Your task to perform on an android device: Go to settings Image 0: 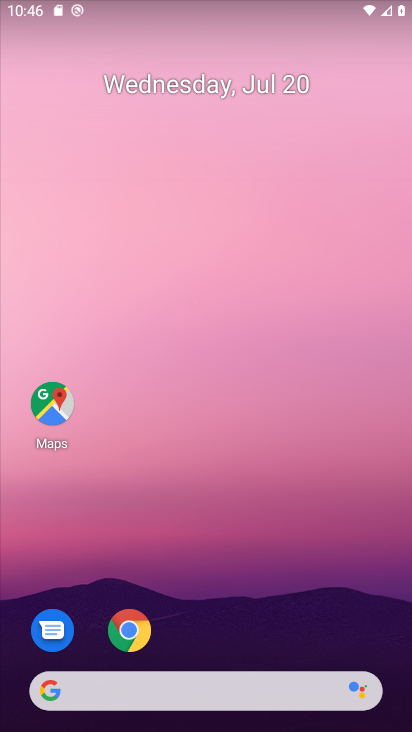
Step 0: drag from (220, 465) to (177, 179)
Your task to perform on an android device: Go to settings Image 1: 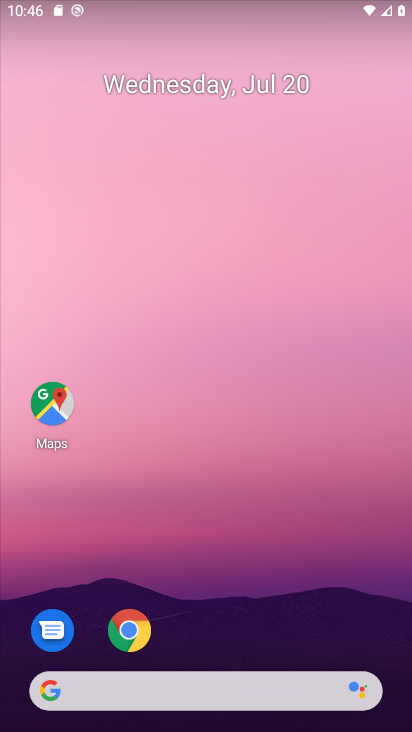
Step 1: drag from (226, 645) to (208, 2)
Your task to perform on an android device: Go to settings Image 2: 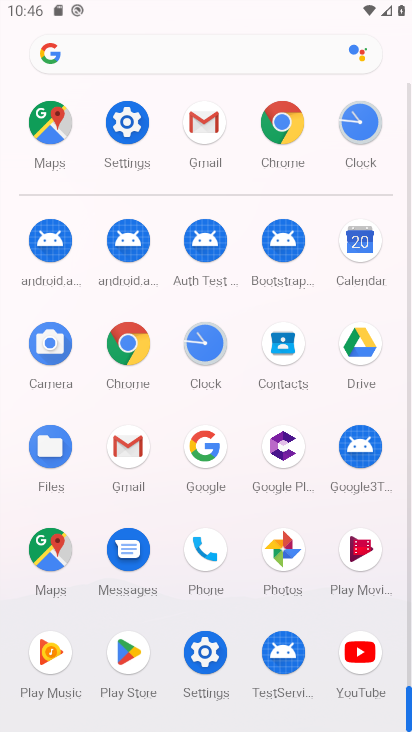
Step 2: click (132, 113)
Your task to perform on an android device: Go to settings Image 3: 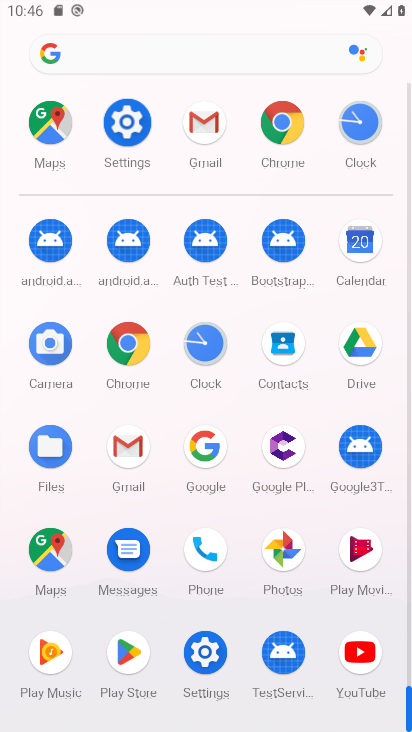
Step 3: click (134, 116)
Your task to perform on an android device: Go to settings Image 4: 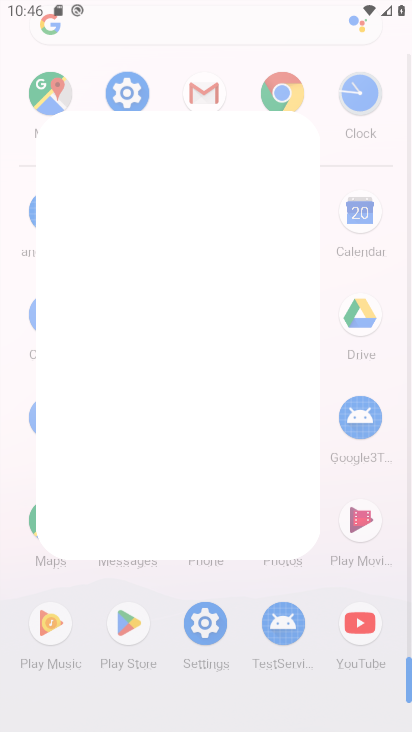
Step 4: click (134, 116)
Your task to perform on an android device: Go to settings Image 5: 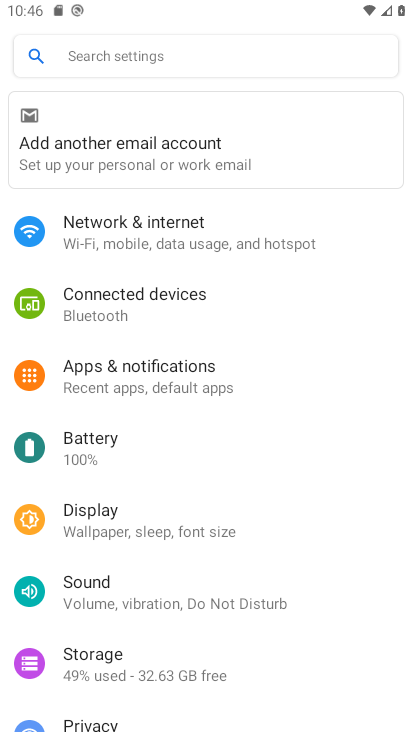
Step 5: drag from (121, 519) to (71, 211)
Your task to perform on an android device: Go to settings Image 6: 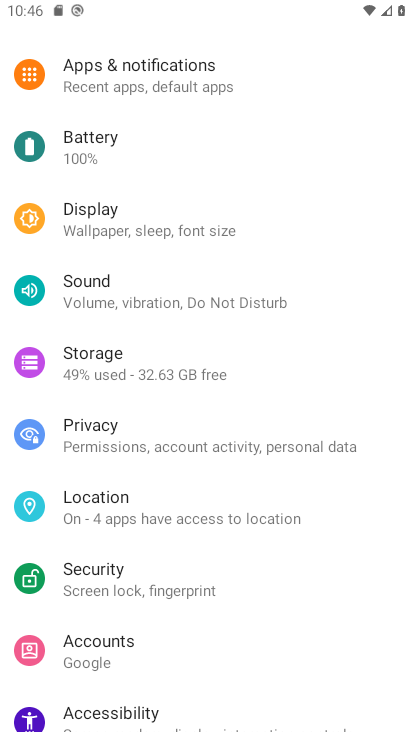
Step 6: drag from (94, 229) to (107, 486)
Your task to perform on an android device: Go to settings Image 7: 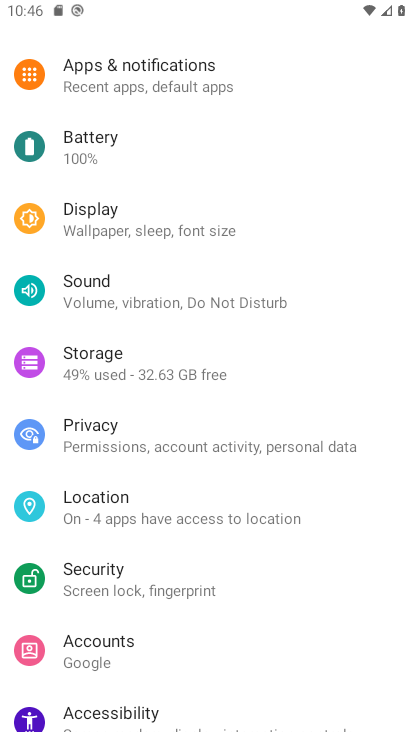
Step 7: click (162, 434)
Your task to perform on an android device: Go to settings Image 8: 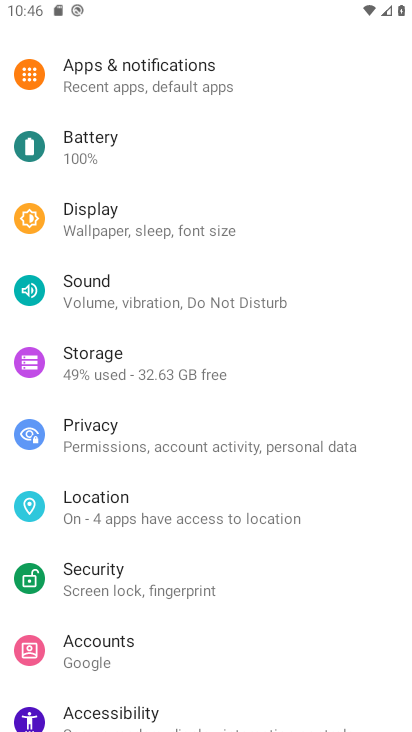
Step 8: drag from (146, 368) to (214, 589)
Your task to perform on an android device: Go to settings Image 9: 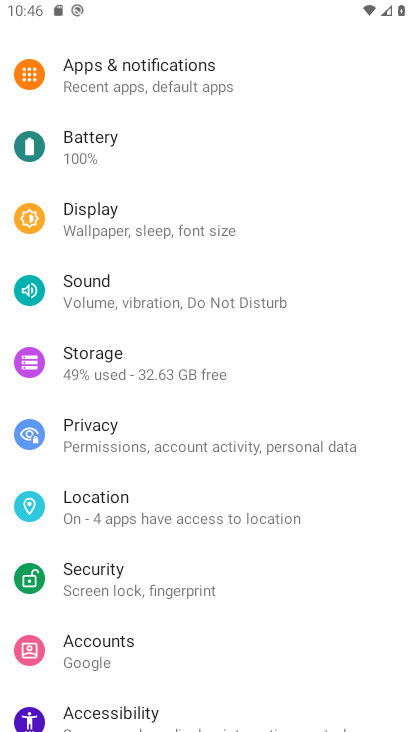
Step 9: drag from (160, 227) to (212, 470)
Your task to perform on an android device: Go to settings Image 10: 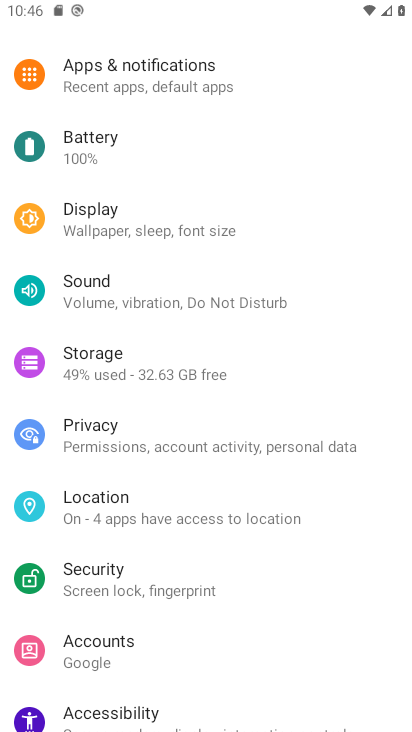
Step 10: drag from (261, 518) to (278, 574)
Your task to perform on an android device: Go to settings Image 11: 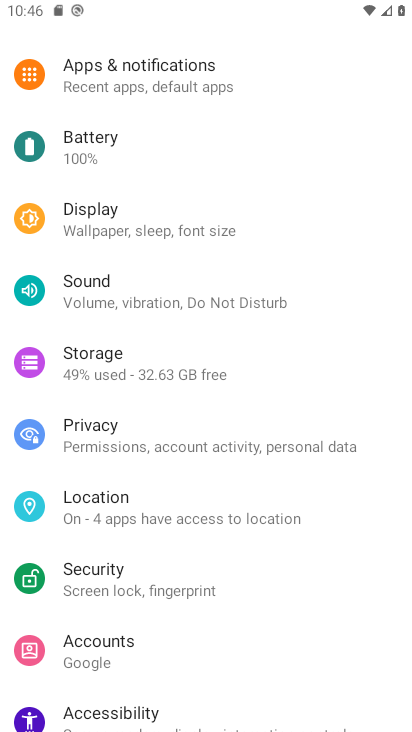
Step 11: drag from (210, 216) to (237, 560)
Your task to perform on an android device: Go to settings Image 12: 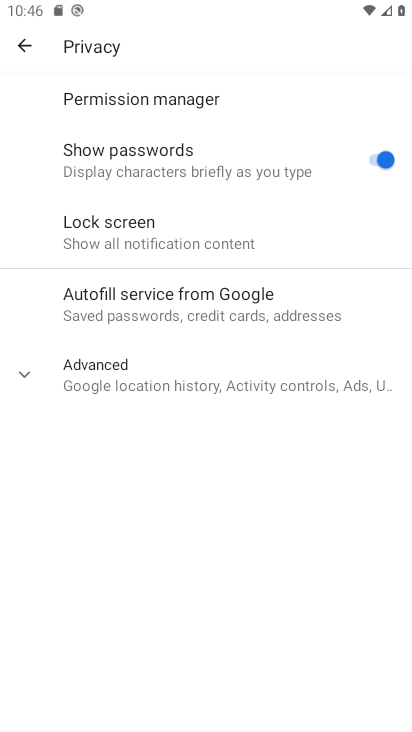
Step 12: drag from (190, 224) to (223, 641)
Your task to perform on an android device: Go to settings Image 13: 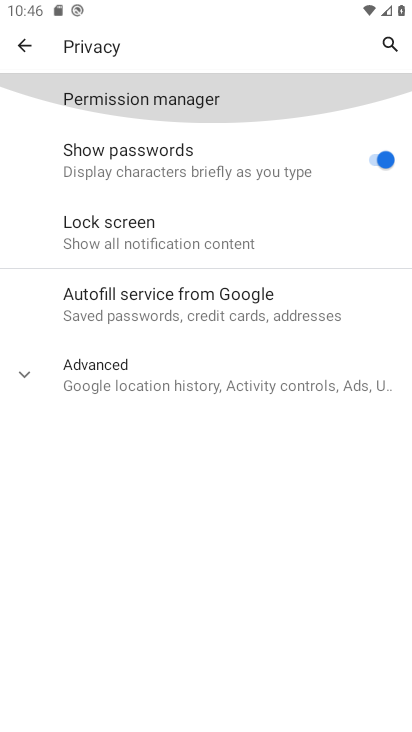
Step 13: drag from (159, 172) to (170, 695)
Your task to perform on an android device: Go to settings Image 14: 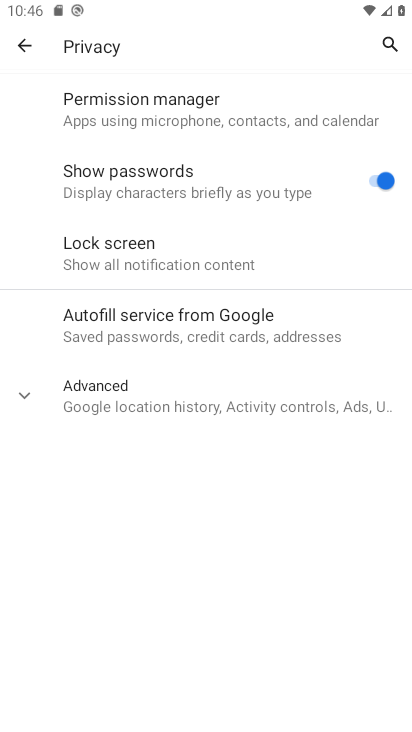
Step 14: click (22, 39)
Your task to perform on an android device: Go to settings Image 15: 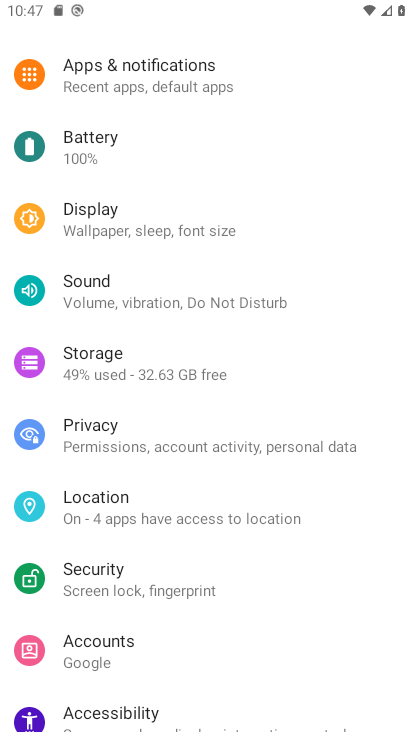
Step 15: task complete